Your task to perform on an android device: Add lenovo thinkpad to the cart on walmart, then select checkout. Image 0: 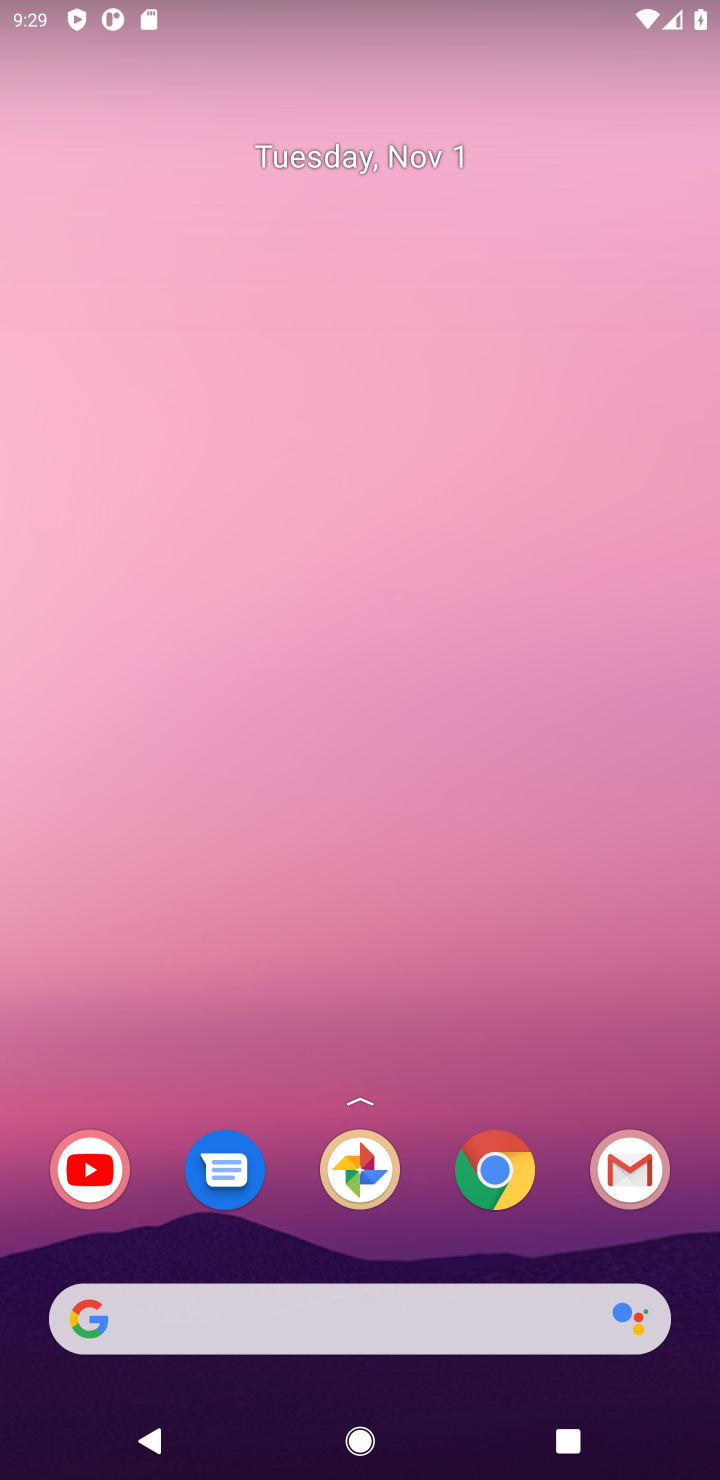
Step 0: press home button
Your task to perform on an android device: Add lenovo thinkpad to the cart on walmart, then select checkout. Image 1: 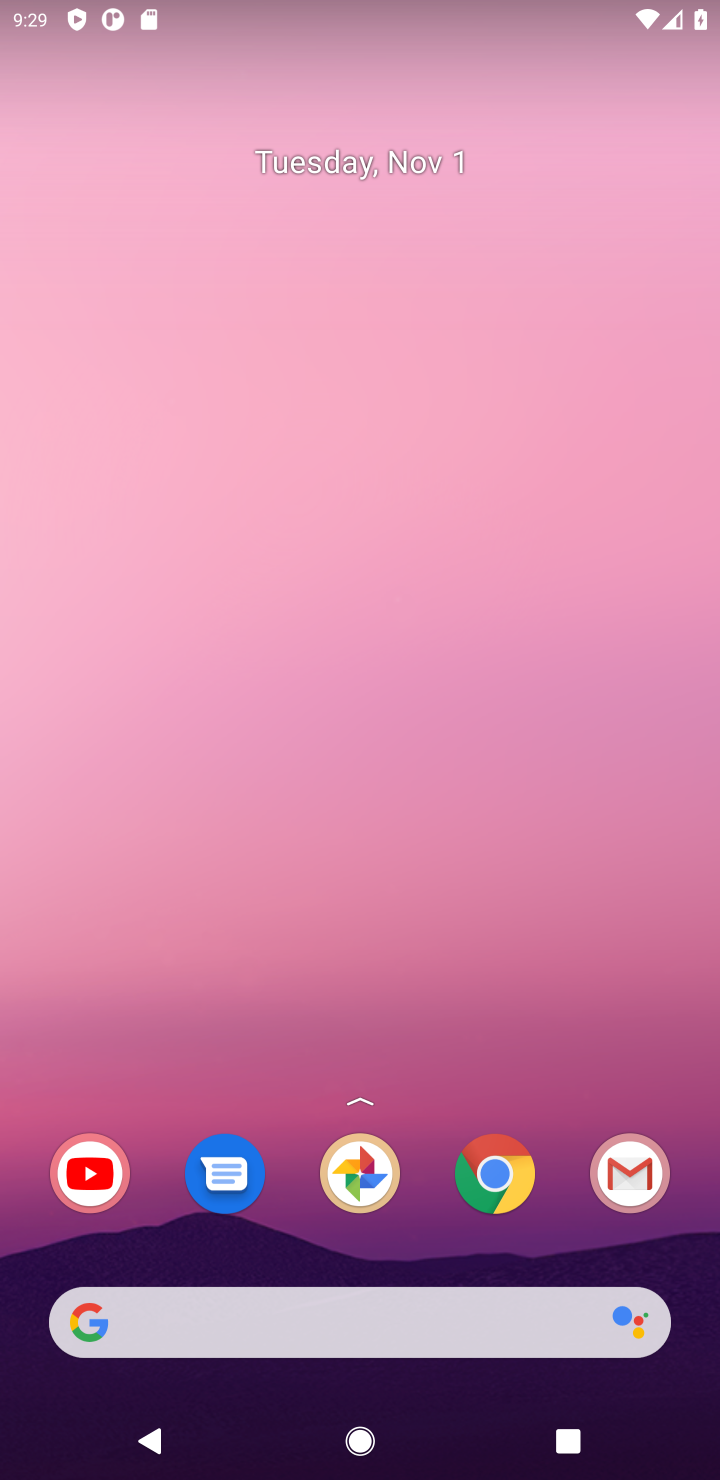
Step 1: drag from (412, 1107) to (513, 589)
Your task to perform on an android device: Add lenovo thinkpad to the cart on walmart, then select checkout. Image 2: 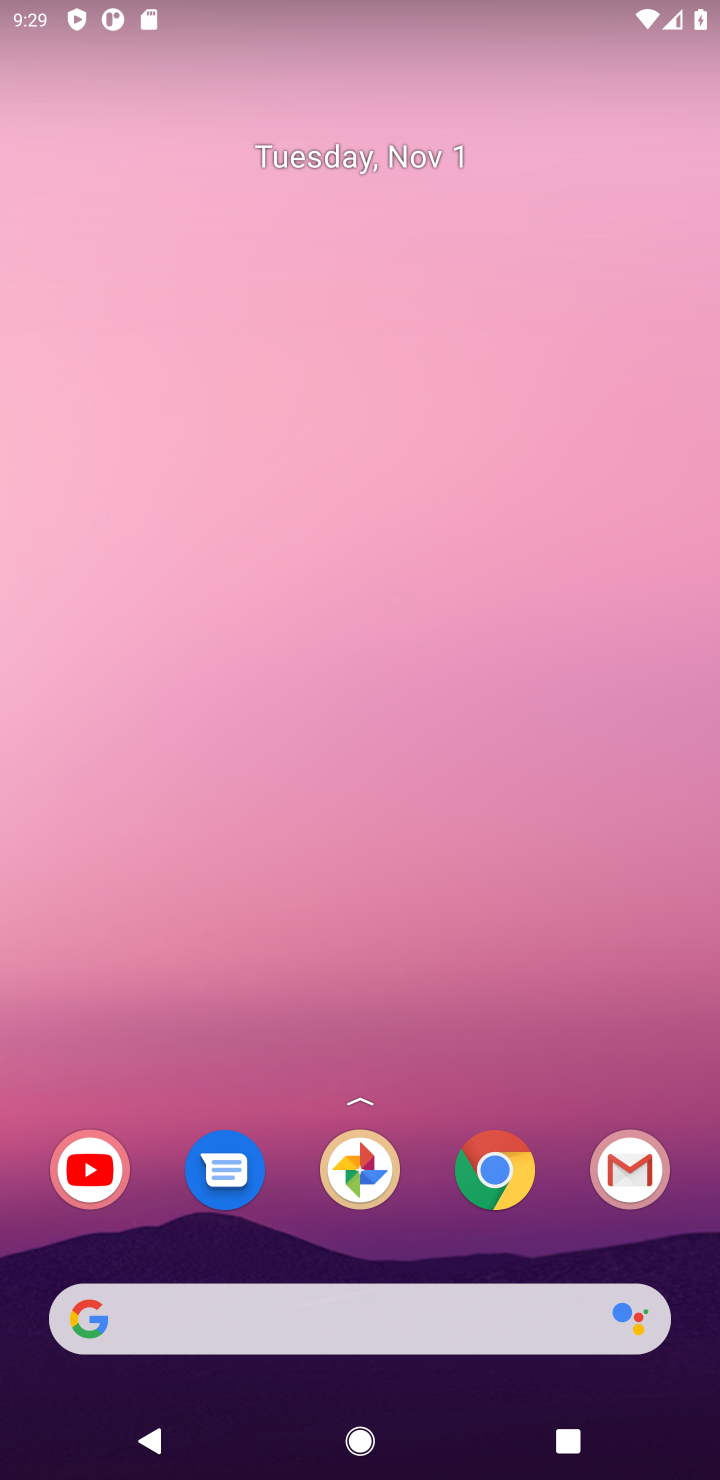
Step 2: drag from (429, 1106) to (592, 2)
Your task to perform on an android device: Add lenovo thinkpad to the cart on walmart, then select checkout. Image 3: 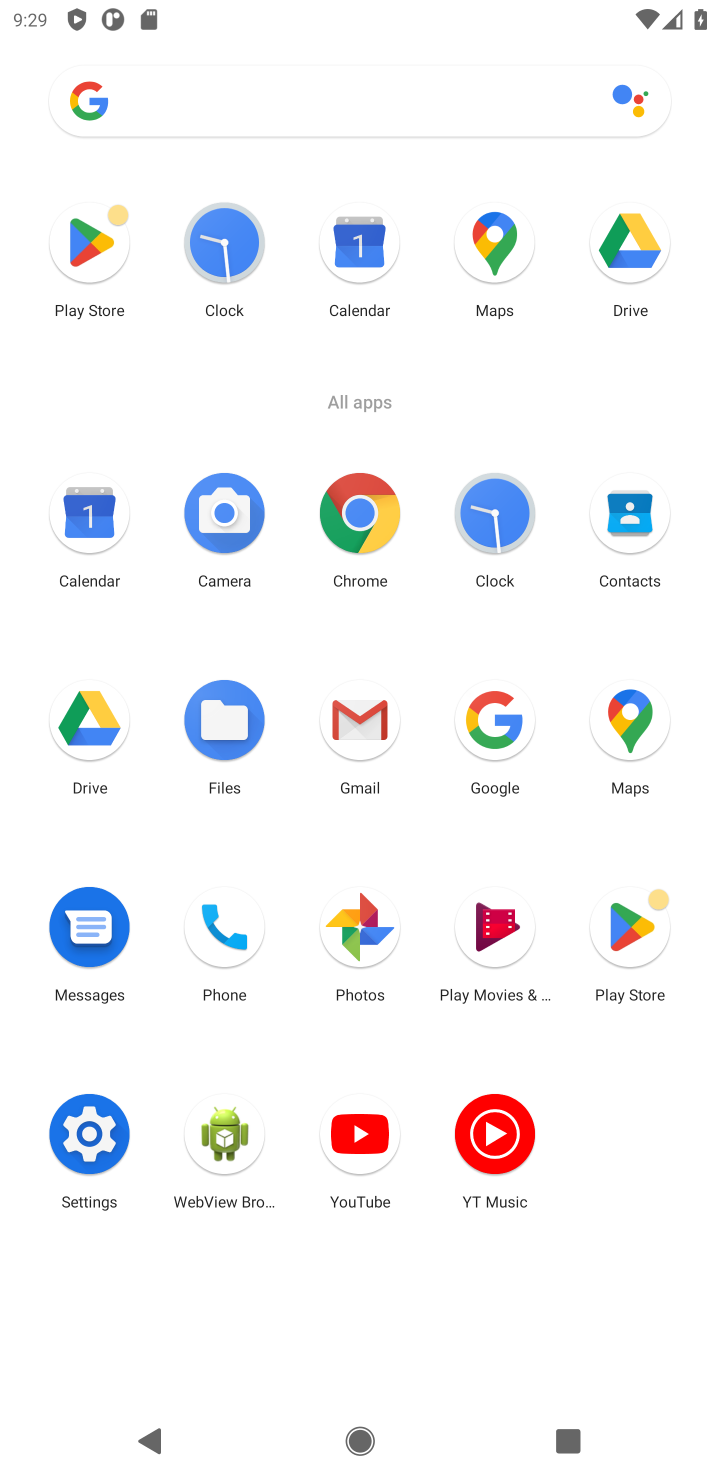
Step 3: click (354, 504)
Your task to perform on an android device: Add lenovo thinkpad to the cart on walmart, then select checkout. Image 4: 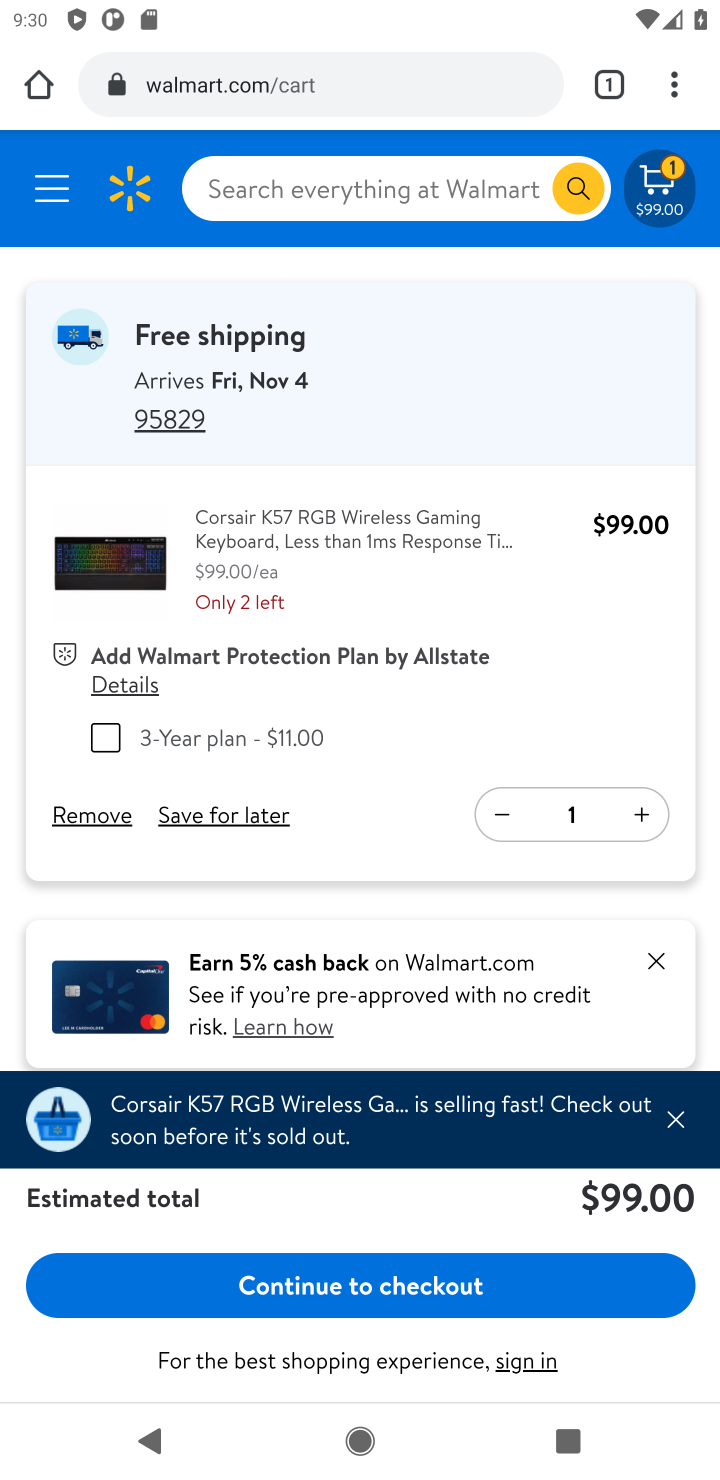
Step 4: click (233, 66)
Your task to perform on an android device: Add lenovo thinkpad to the cart on walmart, then select checkout. Image 5: 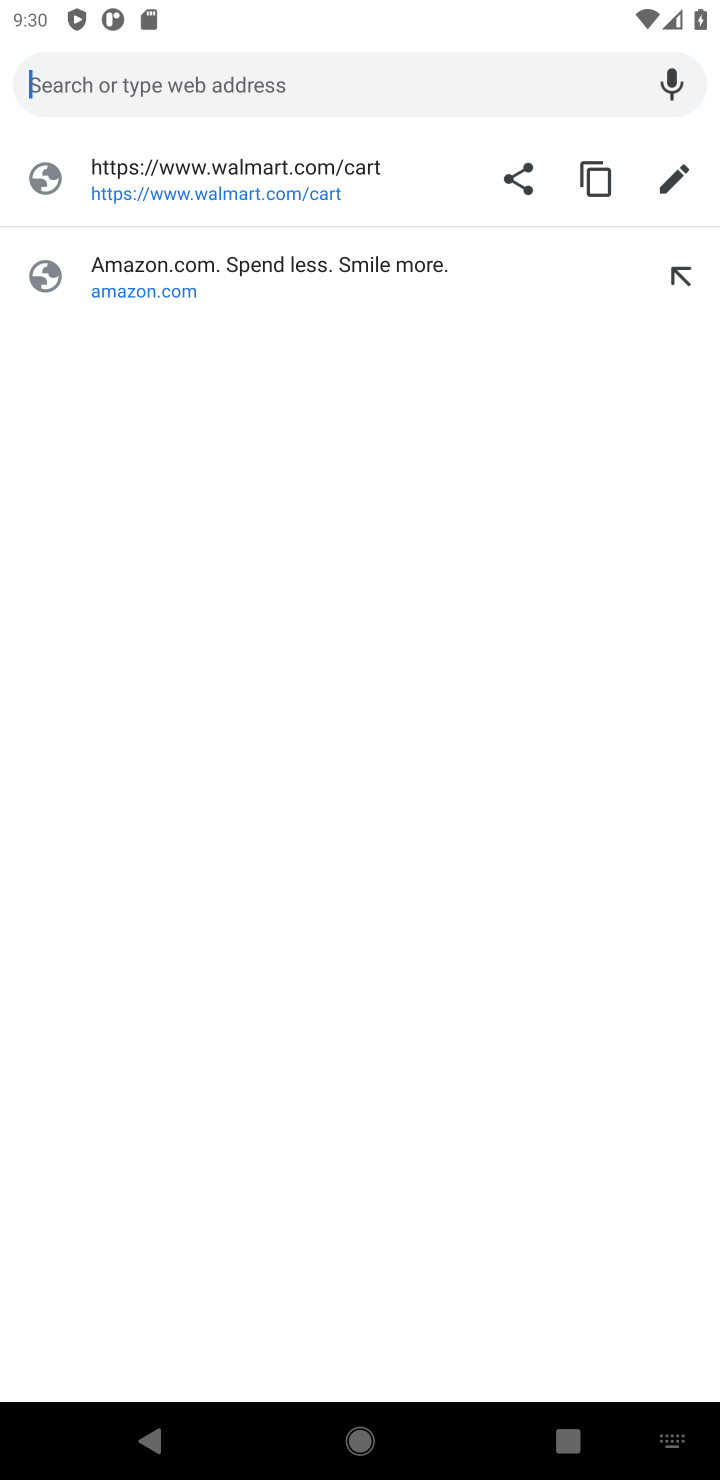
Step 5: click (277, 177)
Your task to perform on an android device: Add lenovo thinkpad to the cart on walmart, then select checkout. Image 6: 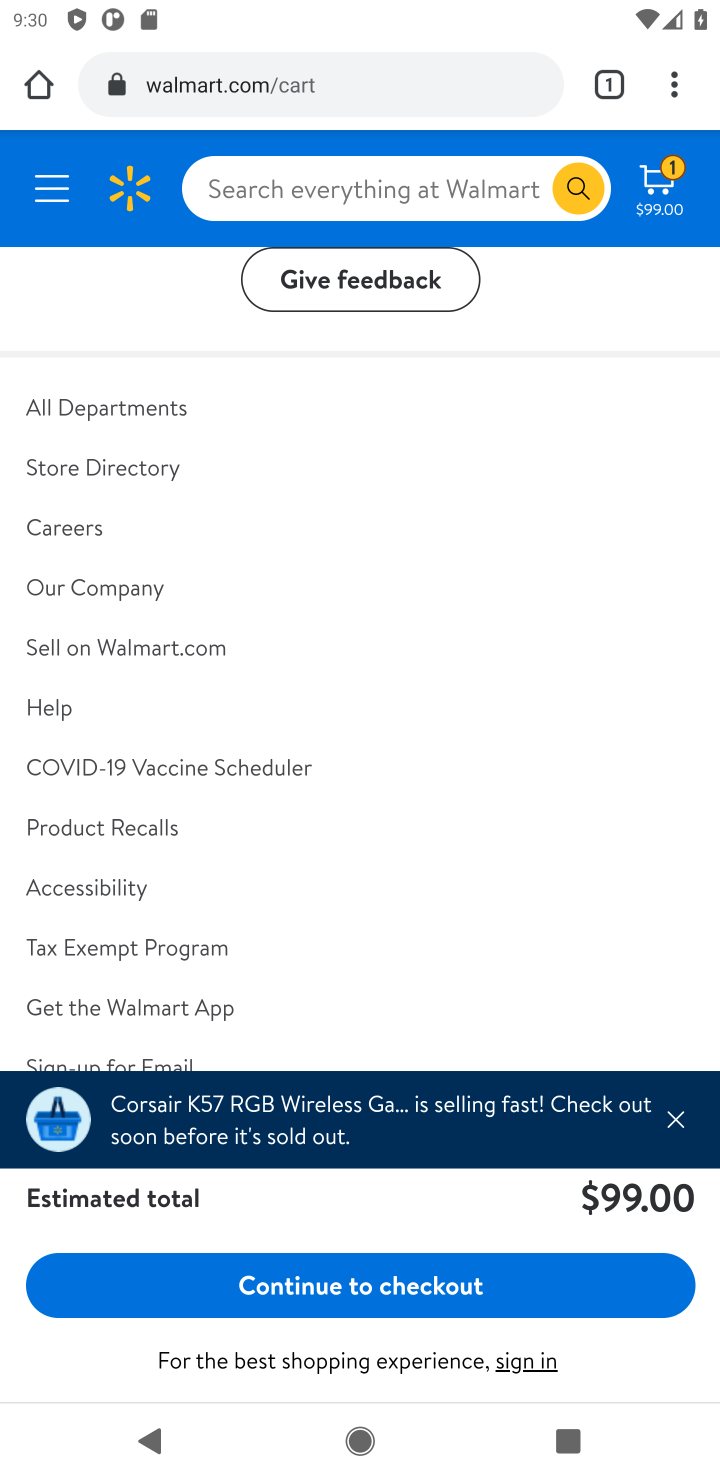
Step 6: click (342, 199)
Your task to perform on an android device: Add lenovo thinkpad to the cart on walmart, then select checkout. Image 7: 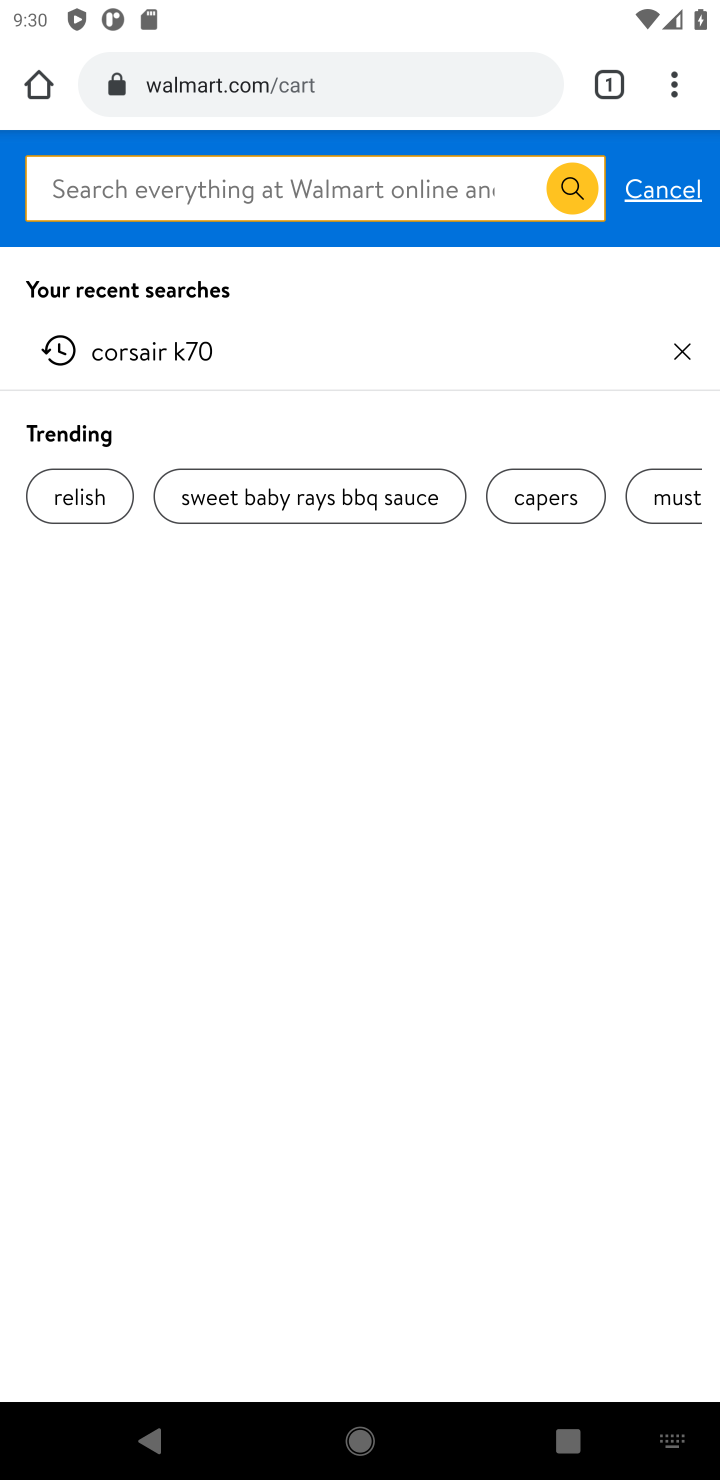
Step 7: type "lenovo thinkpad"
Your task to perform on an android device: Add lenovo thinkpad to the cart on walmart, then select checkout. Image 8: 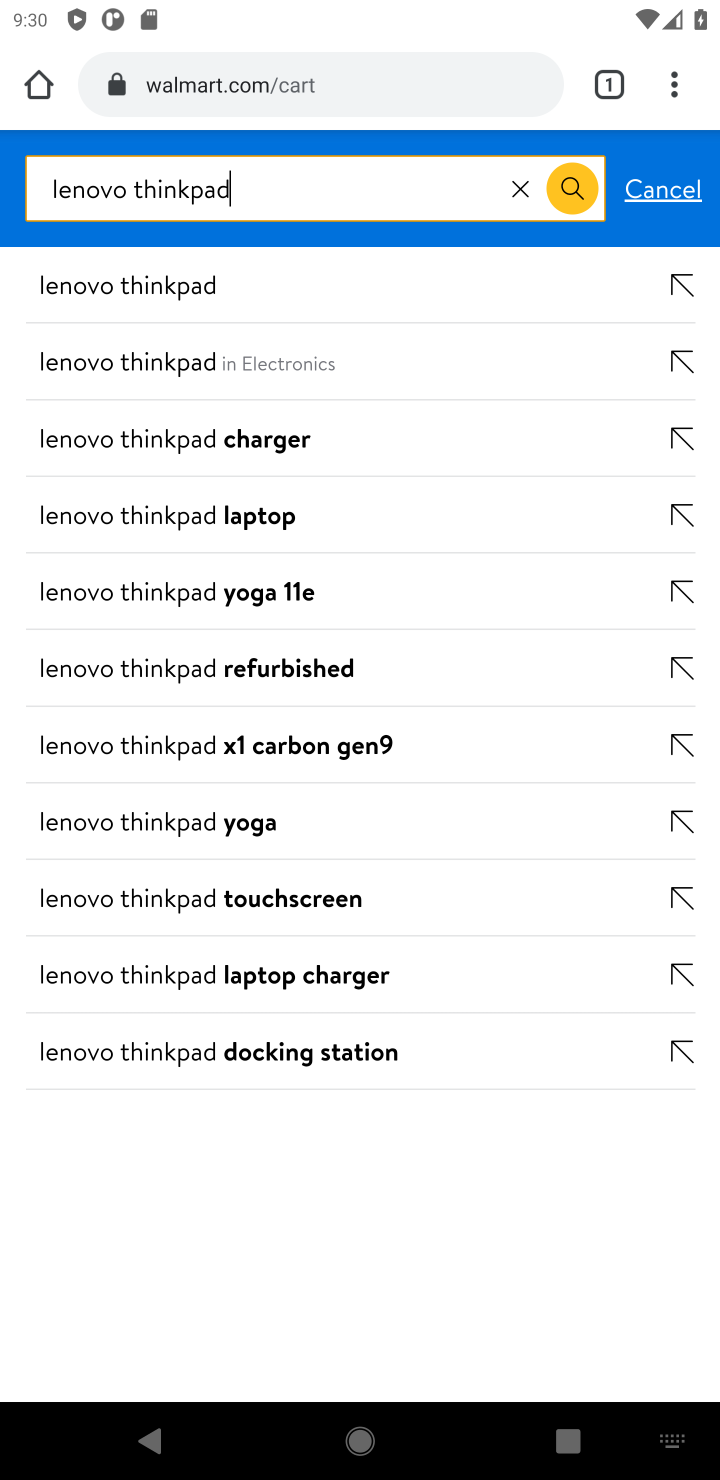
Step 8: click (214, 354)
Your task to perform on an android device: Add lenovo thinkpad to the cart on walmart, then select checkout. Image 9: 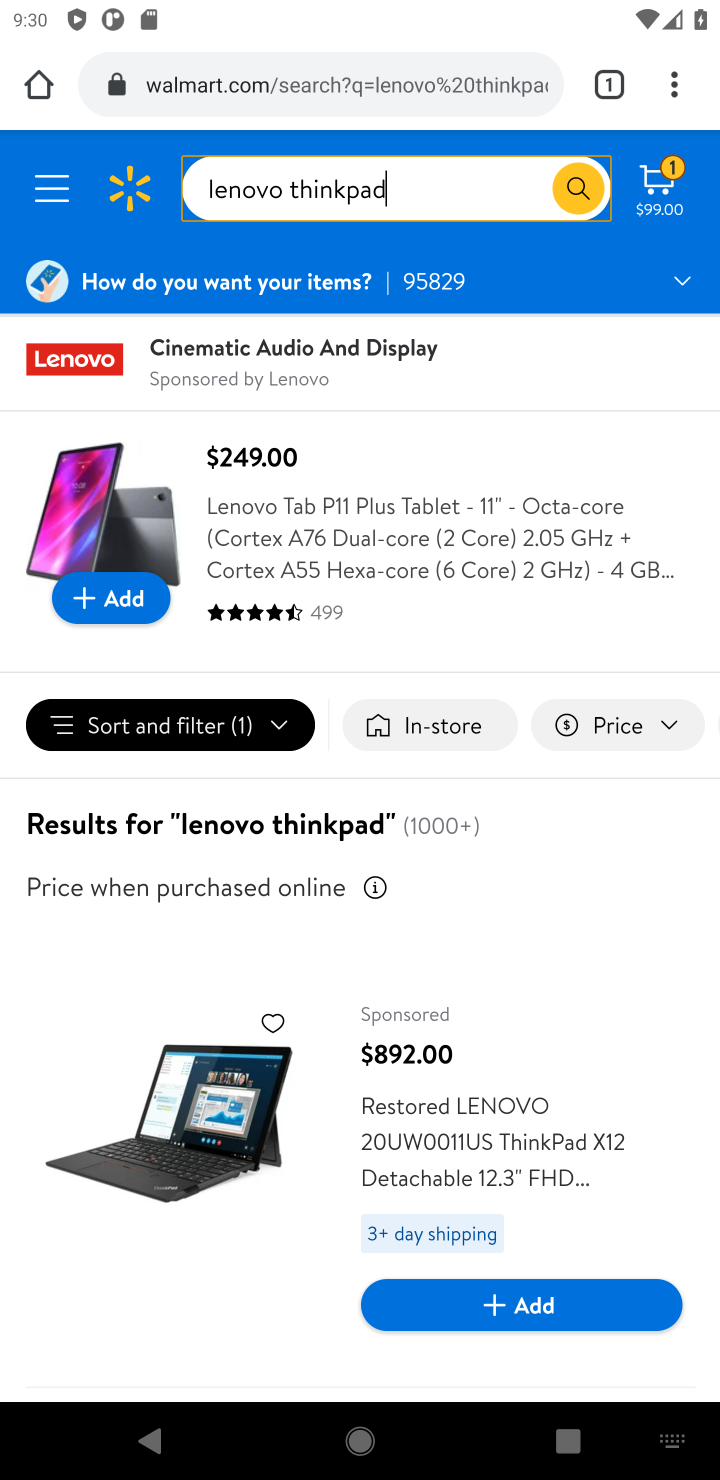
Step 9: drag from (279, 1178) to (327, 402)
Your task to perform on an android device: Add lenovo thinkpad to the cart on walmart, then select checkout. Image 10: 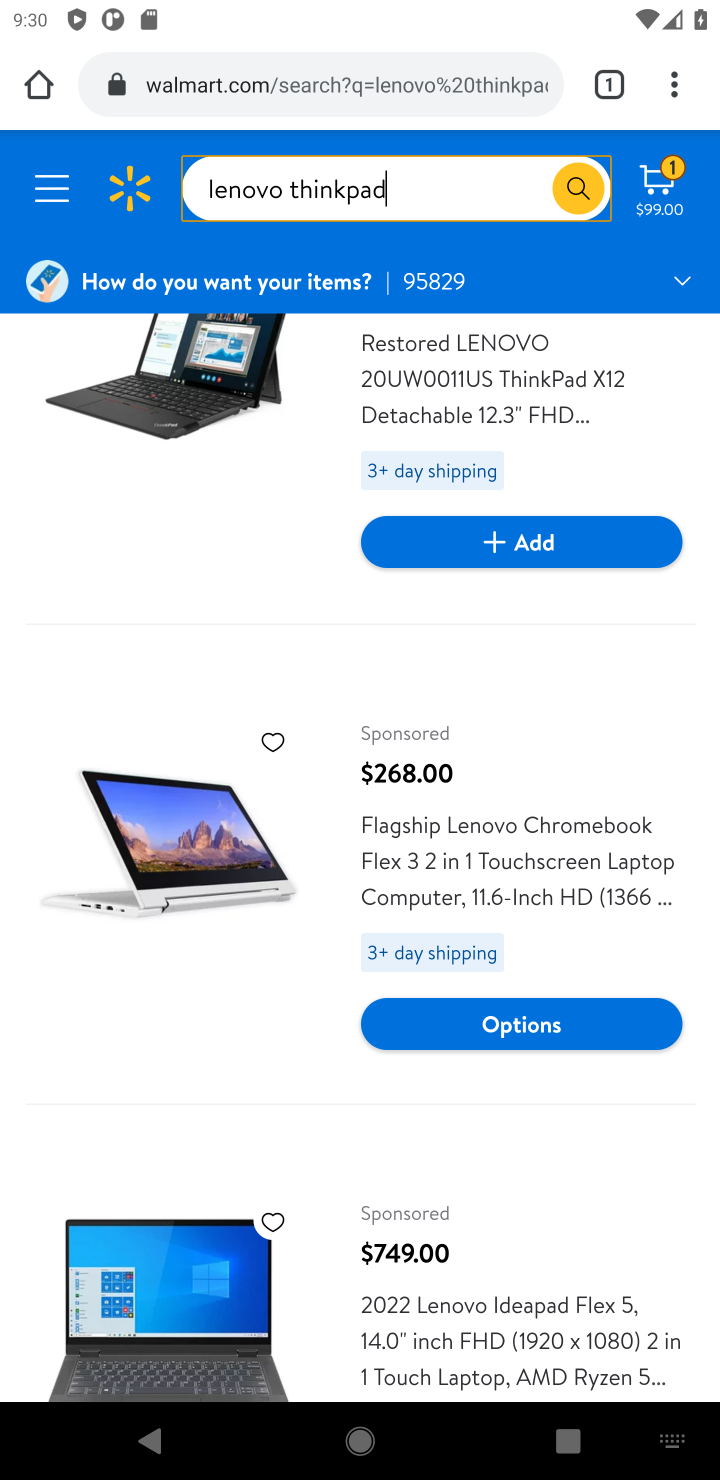
Step 10: drag from (211, 1144) to (353, 385)
Your task to perform on an android device: Add lenovo thinkpad to the cart on walmart, then select checkout. Image 11: 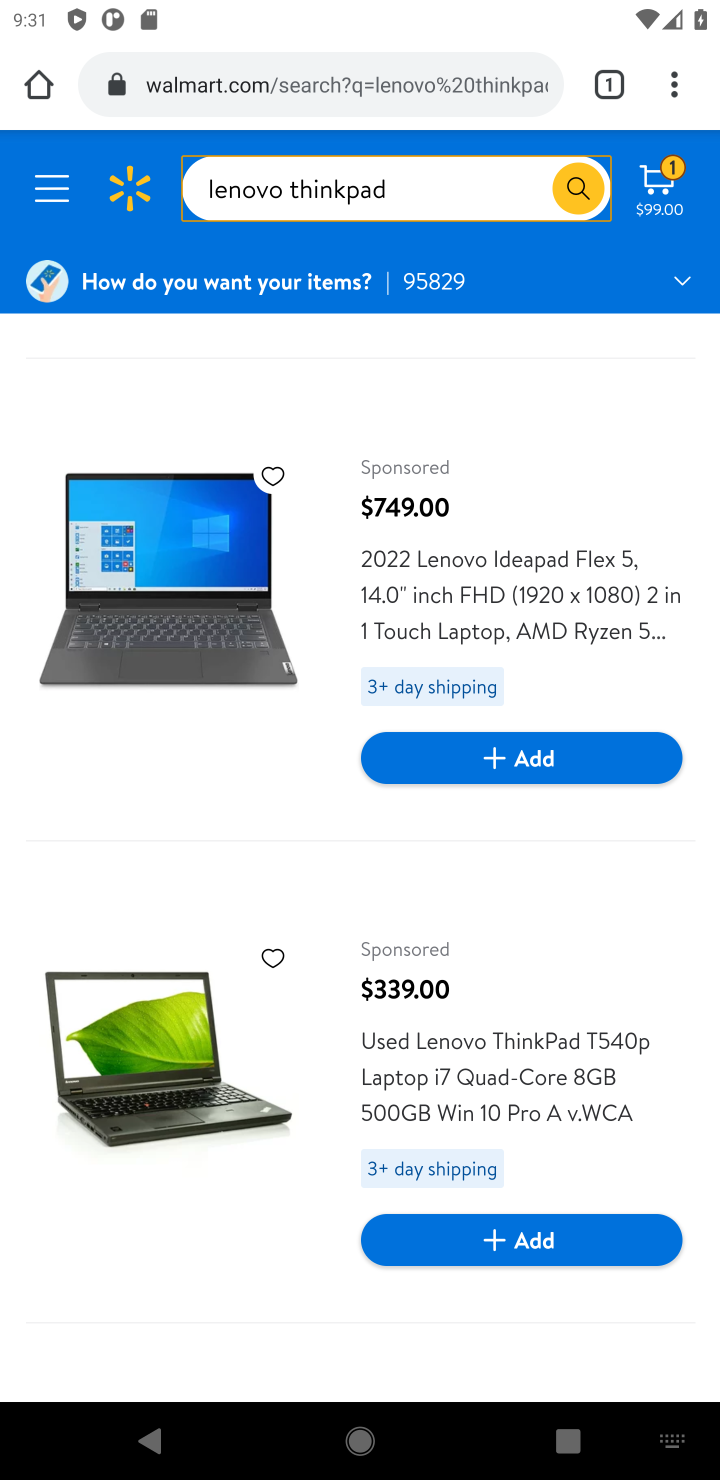
Step 11: drag from (251, 1200) to (286, 574)
Your task to perform on an android device: Add lenovo thinkpad to the cart on walmart, then select checkout. Image 12: 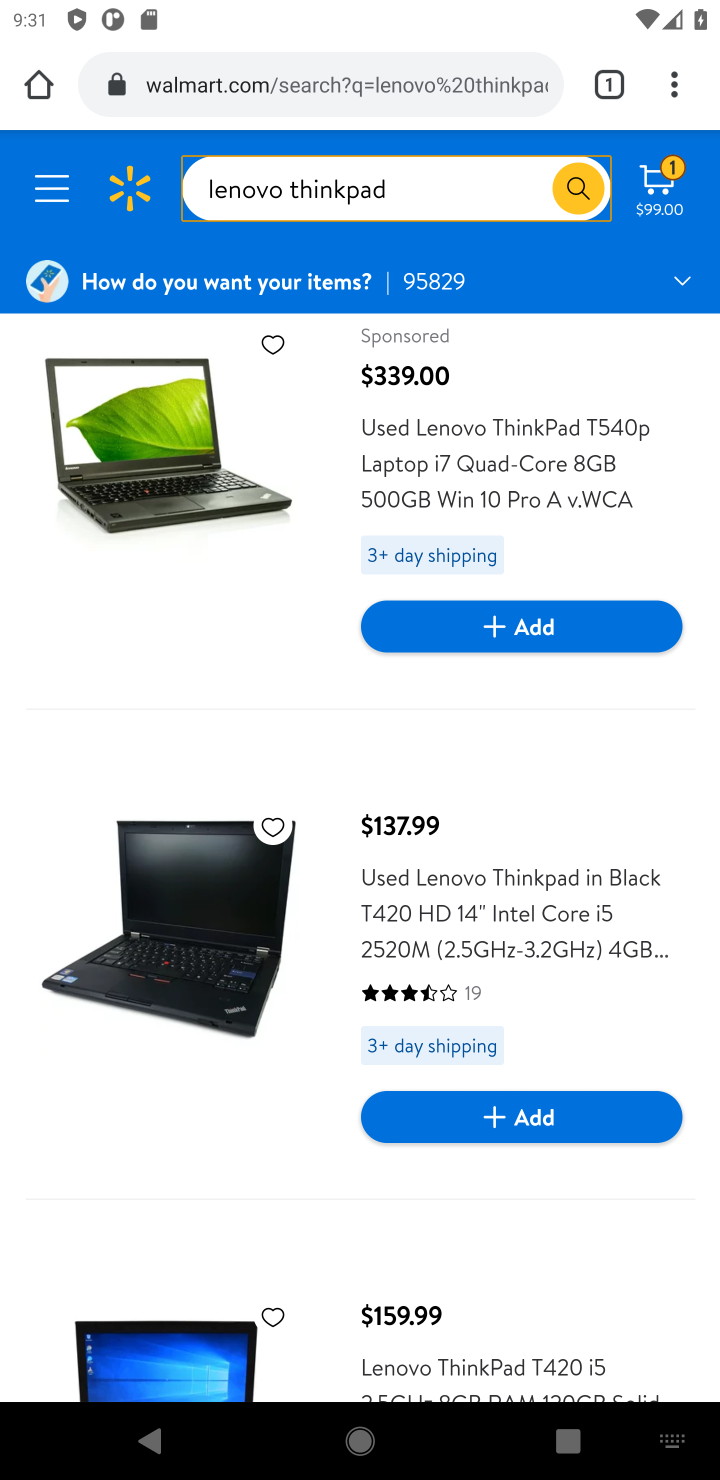
Step 12: drag from (174, 1209) to (305, 320)
Your task to perform on an android device: Add lenovo thinkpad to the cart on walmart, then select checkout. Image 13: 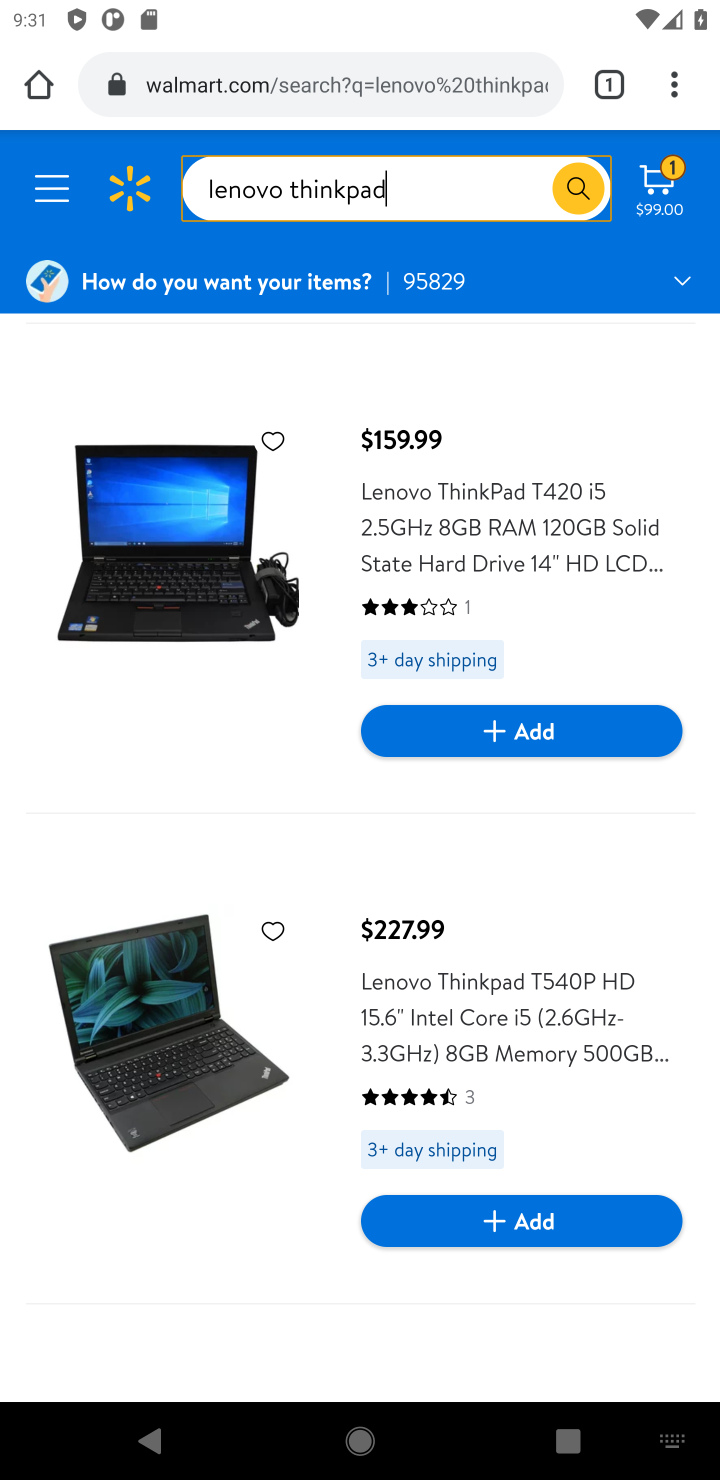
Step 13: drag from (236, 1208) to (308, 222)
Your task to perform on an android device: Add lenovo thinkpad to the cart on walmart, then select checkout. Image 14: 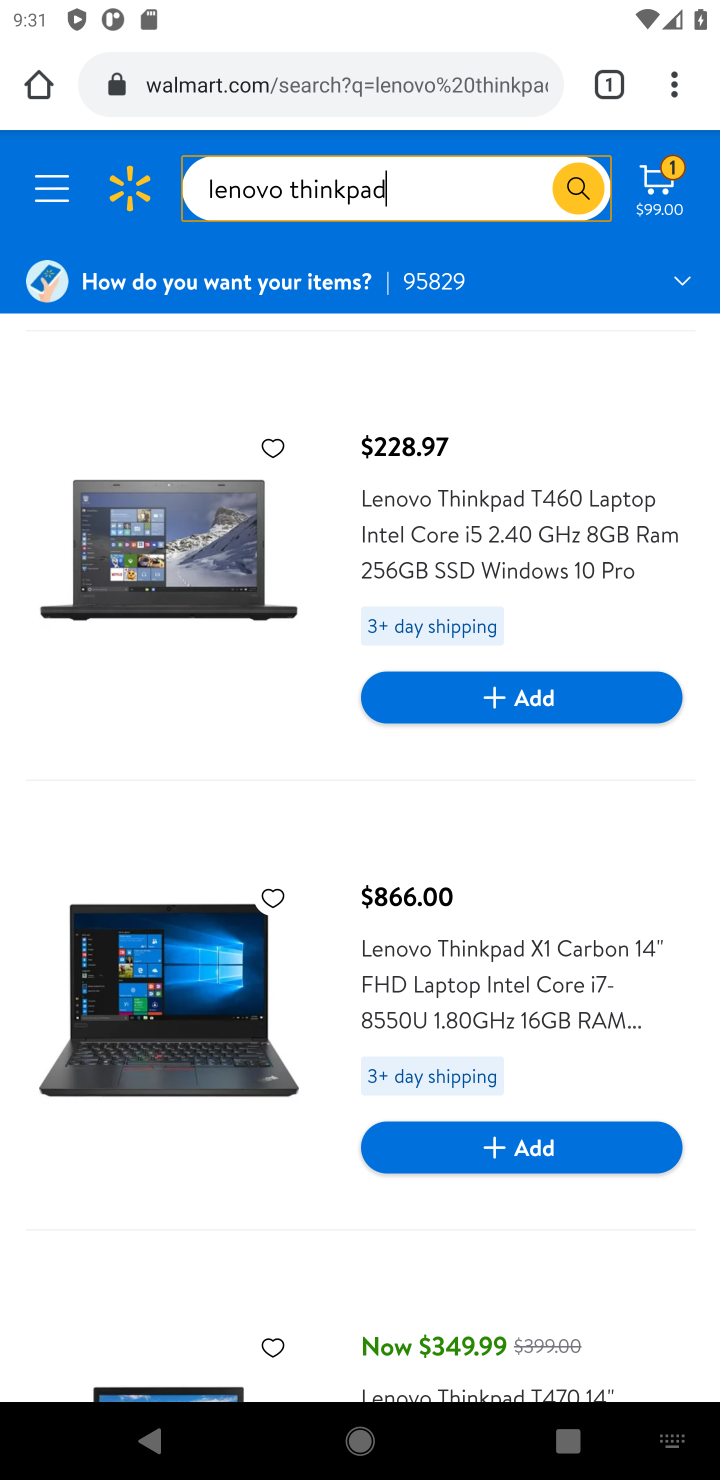
Step 14: drag from (161, 1246) to (343, 363)
Your task to perform on an android device: Add lenovo thinkpad to the cart on walmart, then select checkout. Image 15: 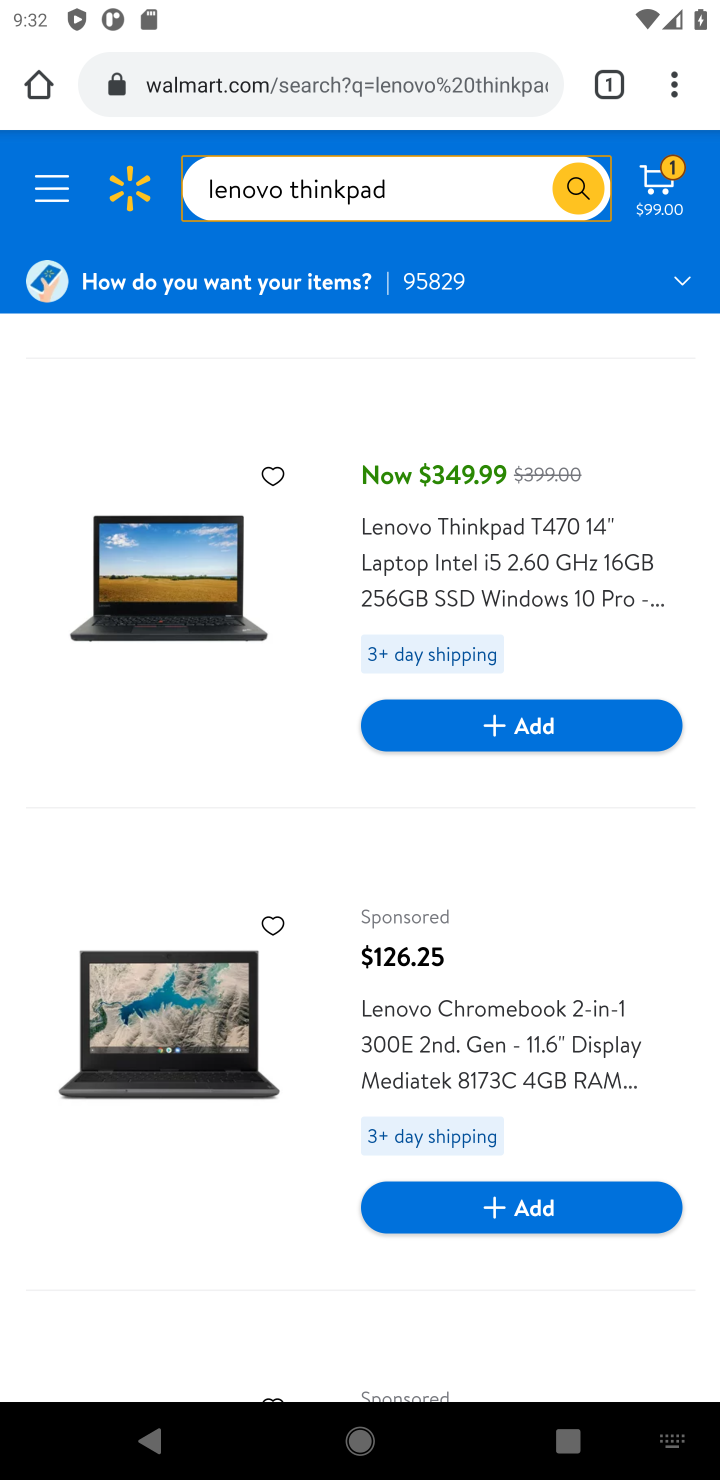
Step 15: drag from (283, 438) to (277, 1380)
Your task to perform on an android device: Add lenovo thinkpad to the cart on walmart, then select checkout. Image 16: 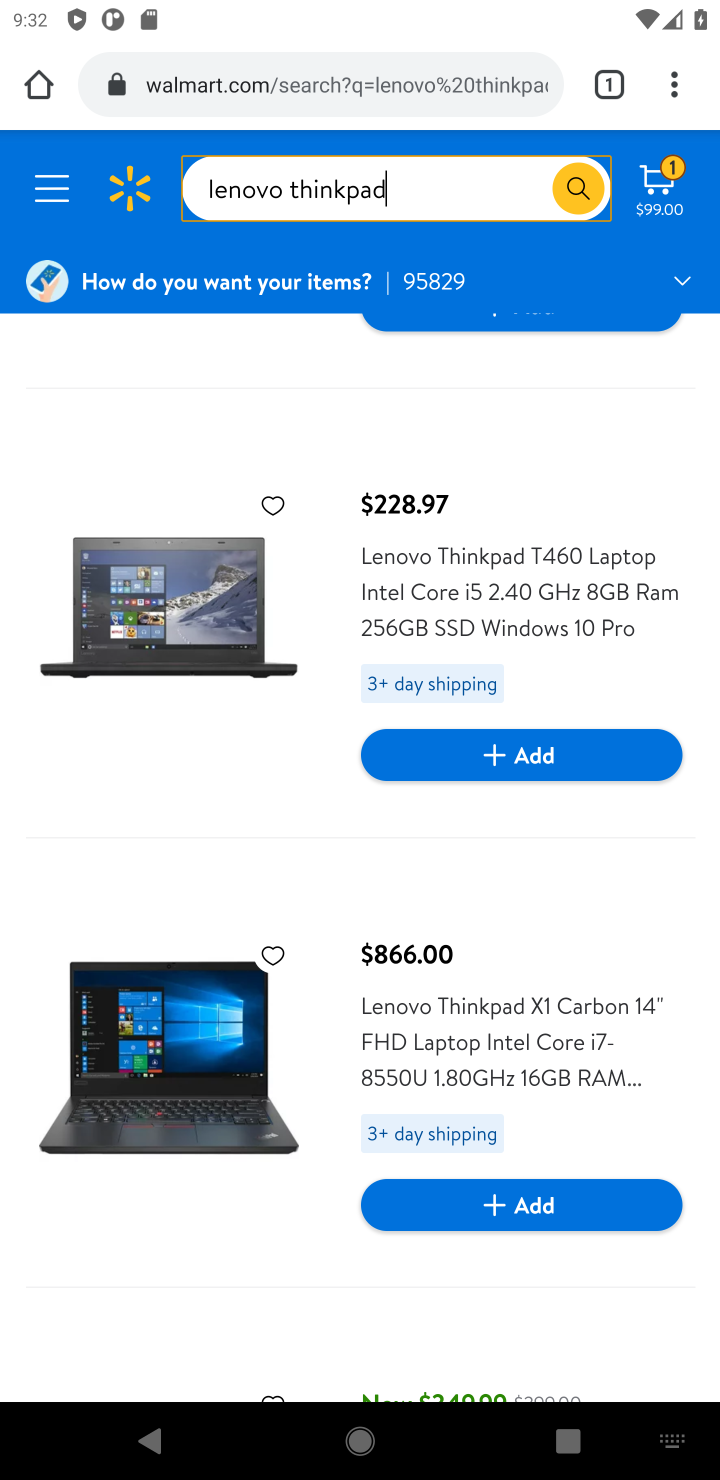
Step 16: click (493, 585)
Your task to perform on an android device: Add lenovo thinkpad to the cart on walmart, then select checkout. Image 17: 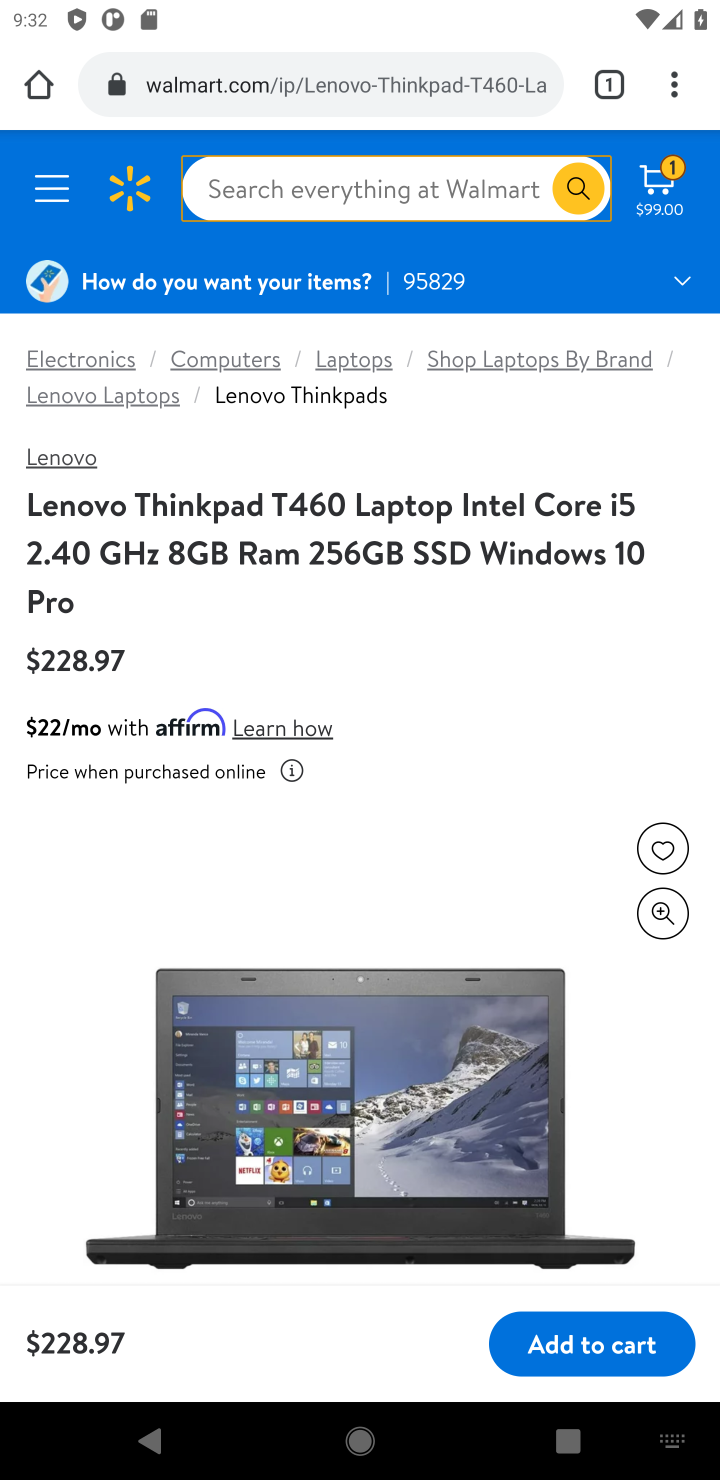
Step 17: drag from (632, 1136) to (612, 703)
Your task to perform on an android device: Add lenovo thinkpad to the cart on walmart, then select checkout. Image 18: 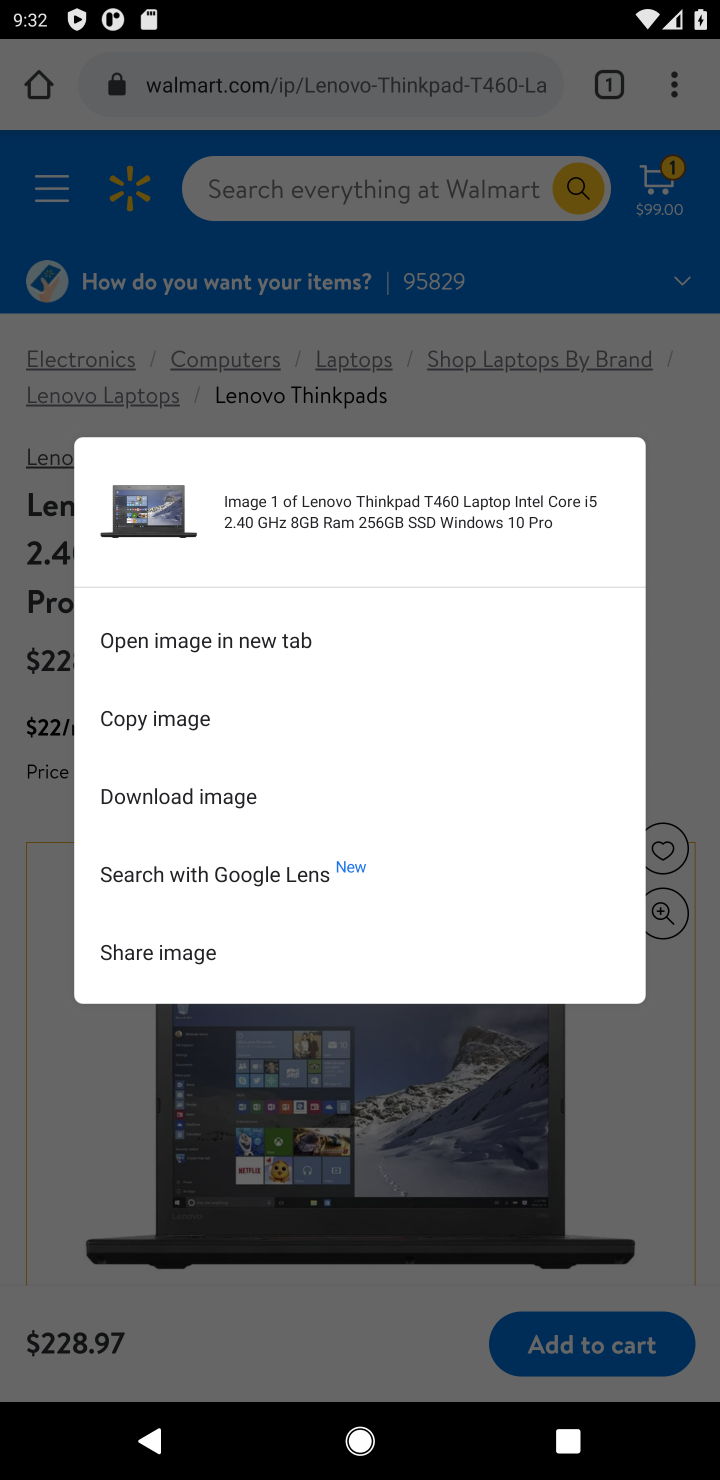
Step 18: click (623, 1135)
Your task to perform on an android device: Add lenovo thinkpad to the cart on walmart, then select checkout. Image 19: 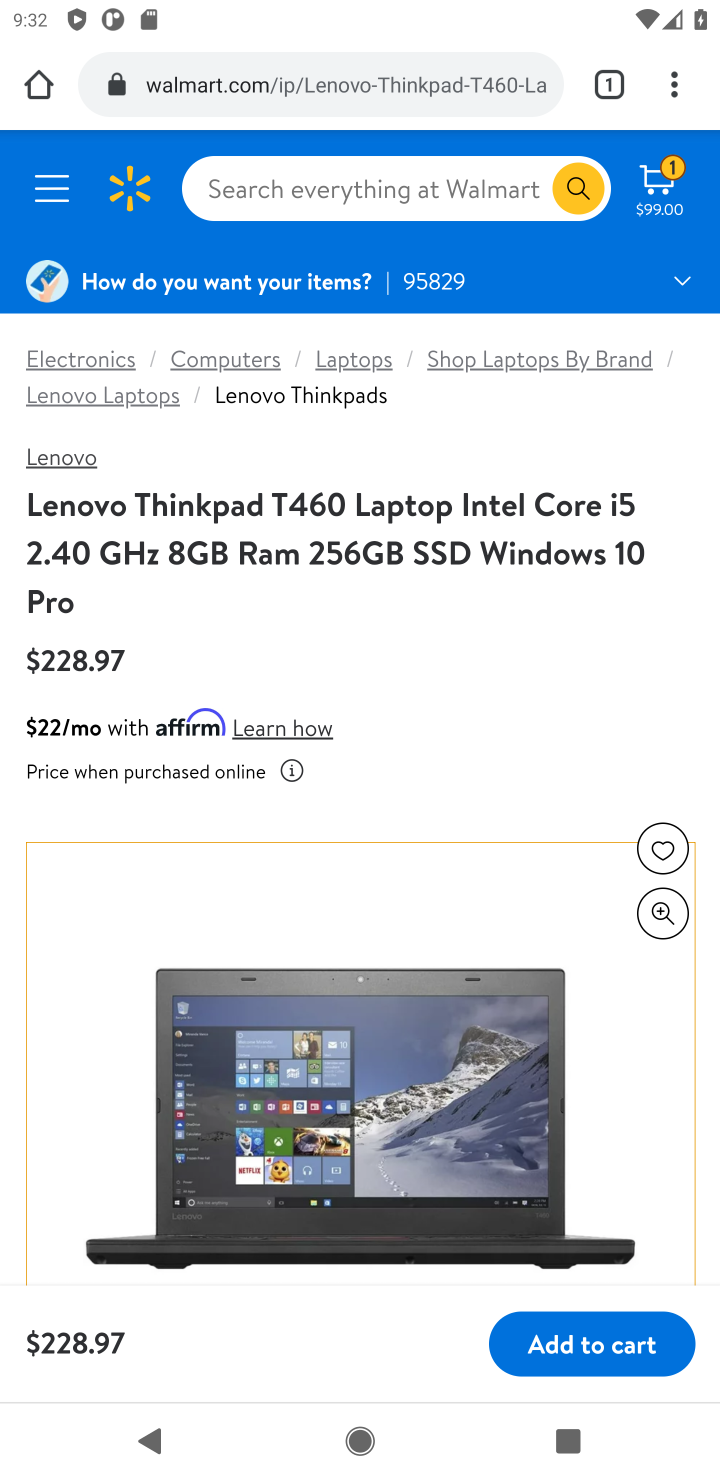
Step 19: click (592, 1352)
Your task to perform on an android device: Add lenovo thinkpad to the cart on walmart, then select checkout. Image 20: 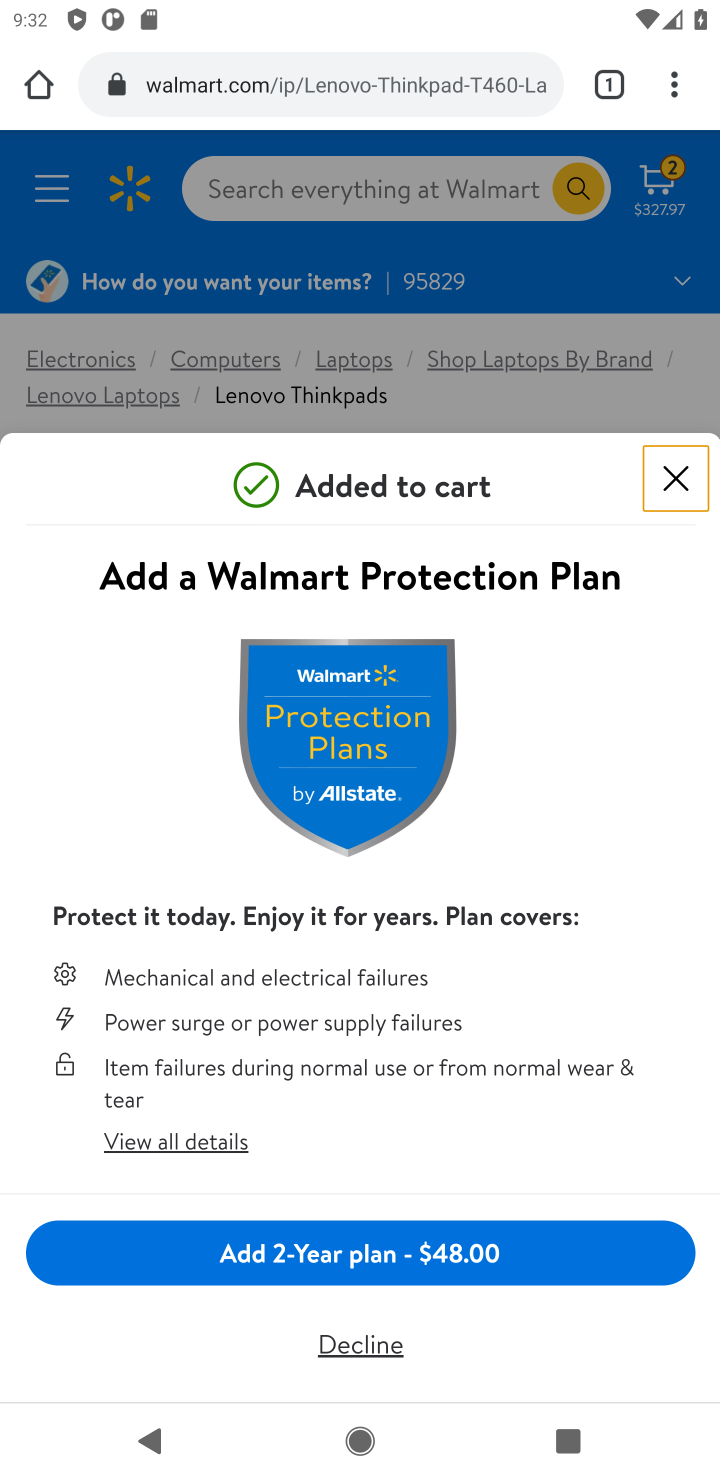
Step 20: click (666, 474)
Your task to perform on an android device: Add lenovo thinkpad to the cart on walmart, then select checkout. Image 21: 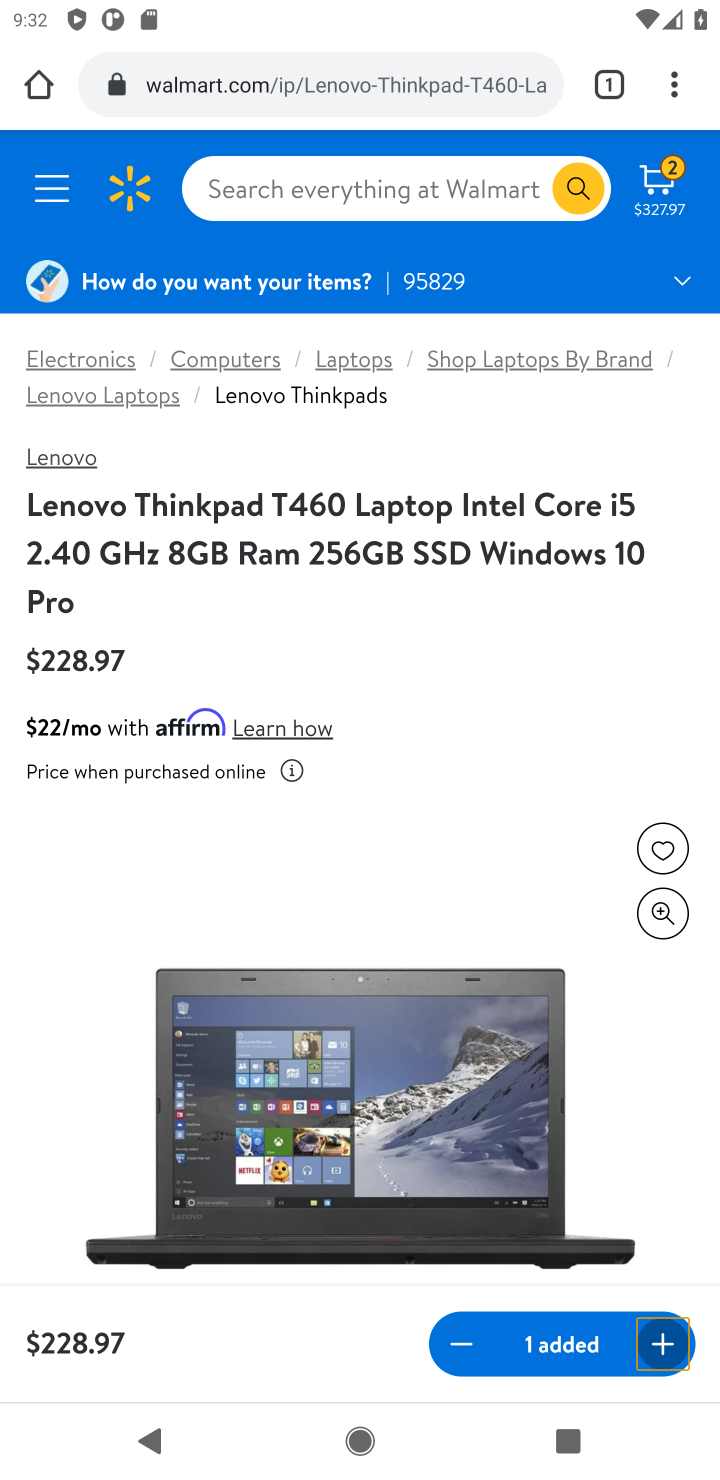
Step 21: click (661, 168)
Your task to perform on an android device: Add lenovo thinkpad to the cart on walmart, then select checkout. Image 22: 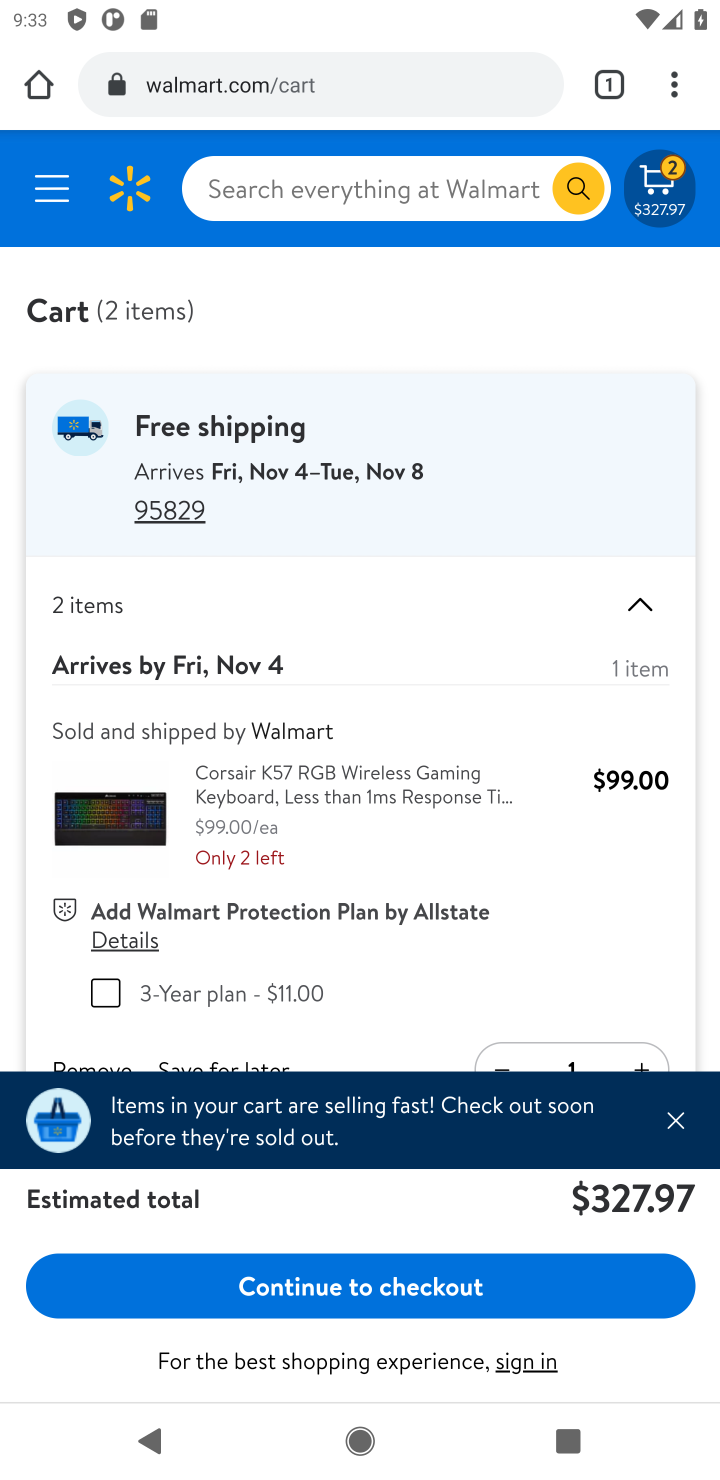
Step 22: click (368, 1294)
Your task to perform on an android device: Add lenovo thinkpad to the cart on walmart, then select checkout. Image 23: 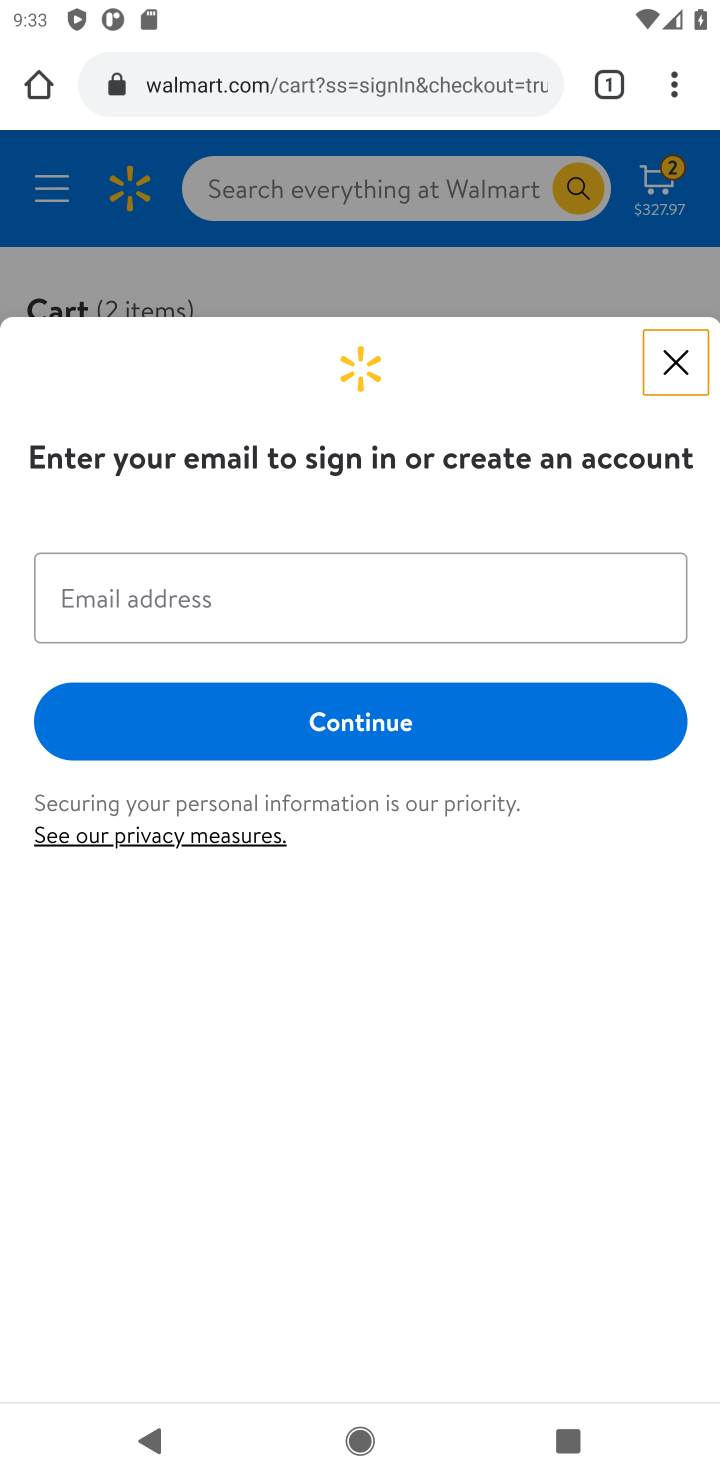
Step 23: click (677, 360)
Your task to perform on an android device: Add lenovo thinkpad to the cart on walmart, then select checkout. Image 24: 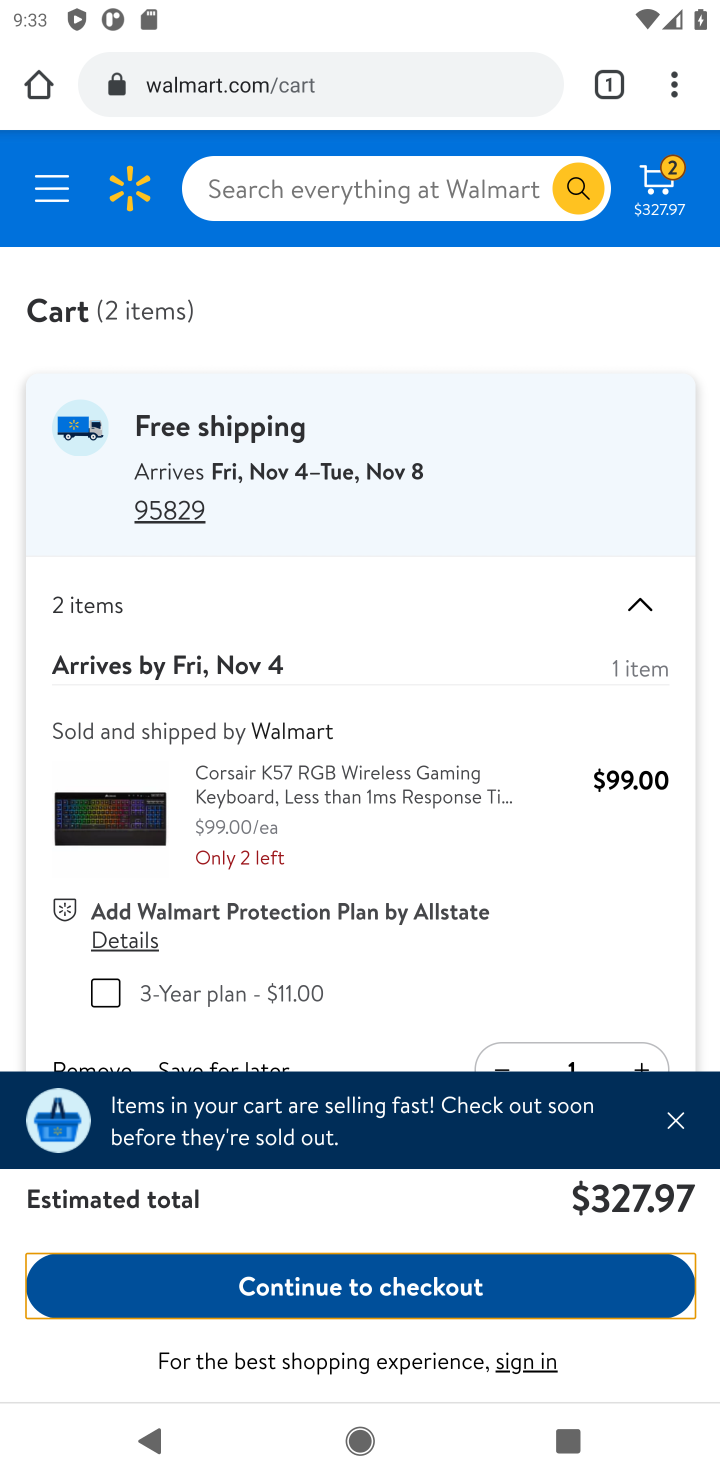
Step 24: task complete